Your task to perform on an android device: add a contact Image 0: 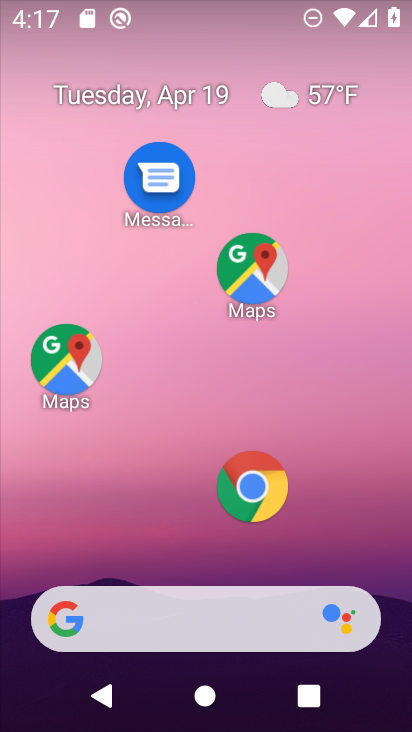
Step 0: click (250, 717)
Your task to perform on an android device: add a contact Image 1: 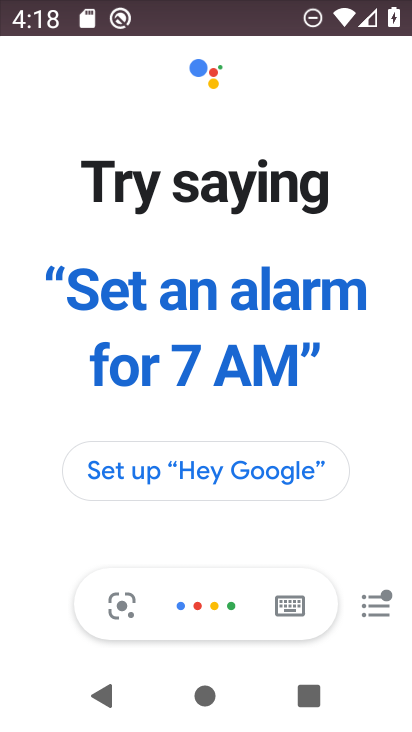
Step 1: press home button
Your task to perform on an android device: add a contact Image 2: 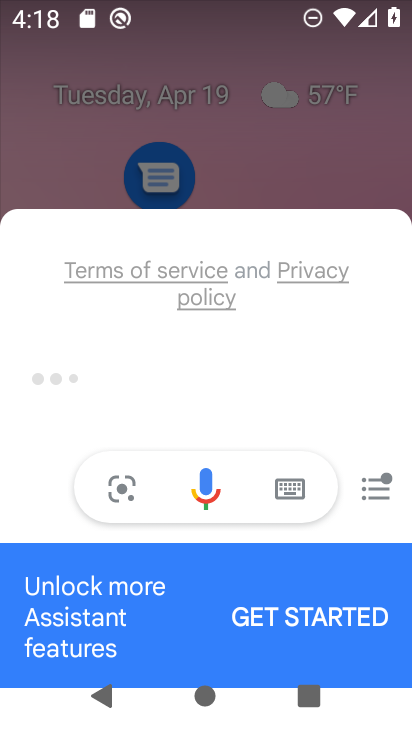
Step 2: drag from (250, 717) to (411, 502)
Your task to perform on an android device: add a contact Image 3: 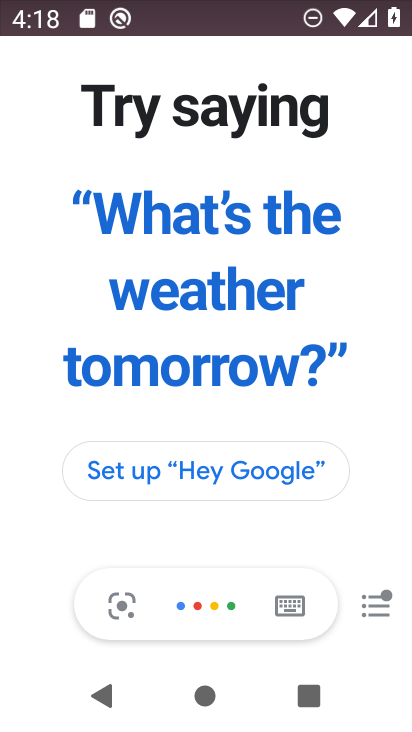
Step 3: drag from (212, 527) to (204, 406)
Your task to perform on an android device: add a contact Image 4: 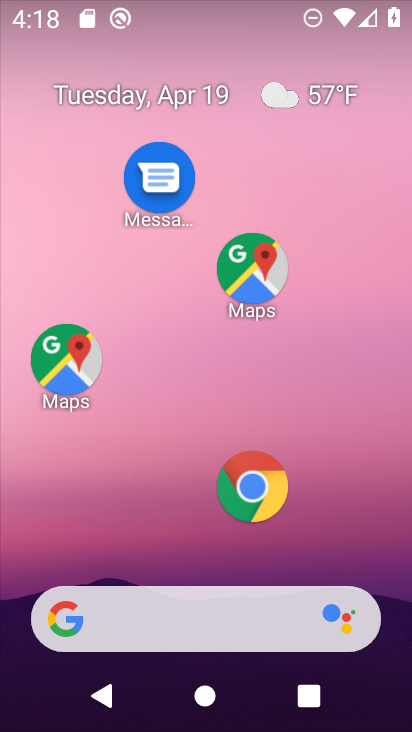
Step 4: click (122, 696)
Your task to perform on an android device: add a contact Image 5: 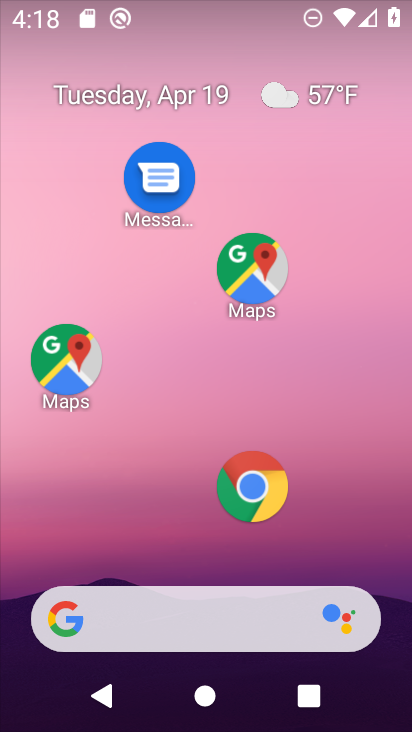
Step 5: drag from (145, 436) to (187, 134)
Your task to perform on an android device: add a contact Image 6: 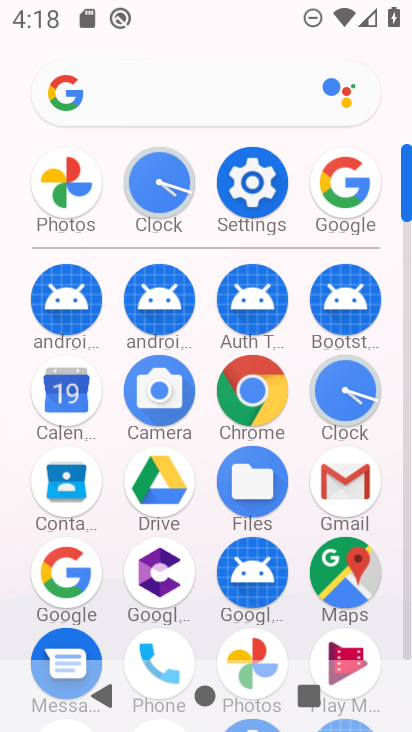
Step 6: click (71, 478)
Your task to perform on an android device: add a contact Image 7: 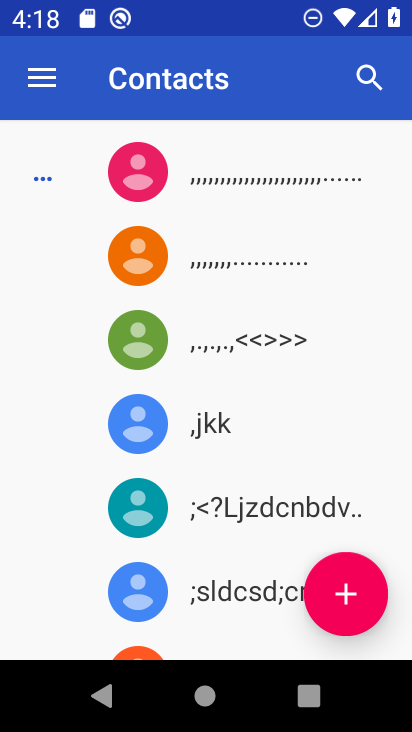
Step 7: click (358, 588)
Your task to perform on an android device: add a contact Image 8: 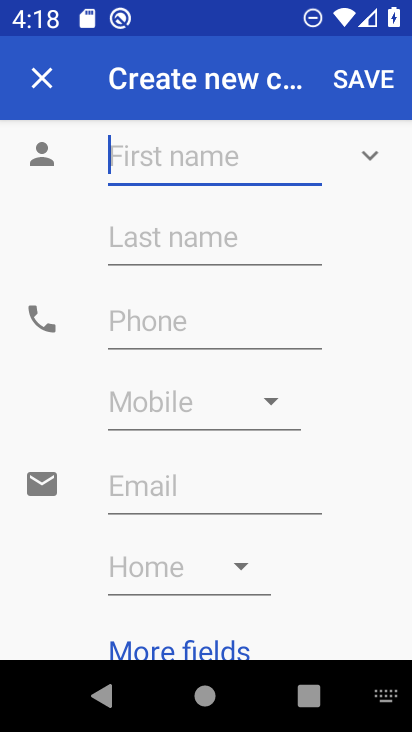
Step 8: type "htfvvfhyvy"
Your task to perform on an android device: add a contact Image 9: 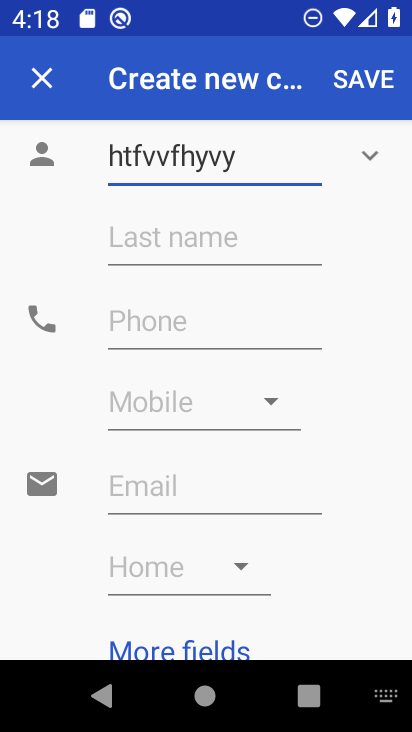
Step 9: click (347, 73)
Your task to perform on an android device: add a contact Image 10: 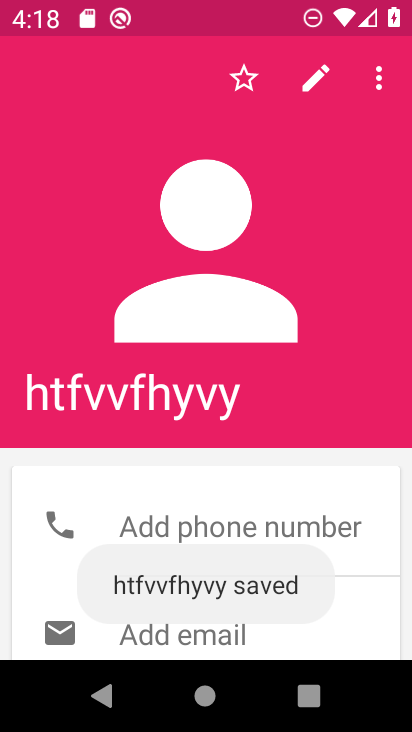
Step 10: task complete